Your task to perform on an android device: Go to Android settings Image 0: 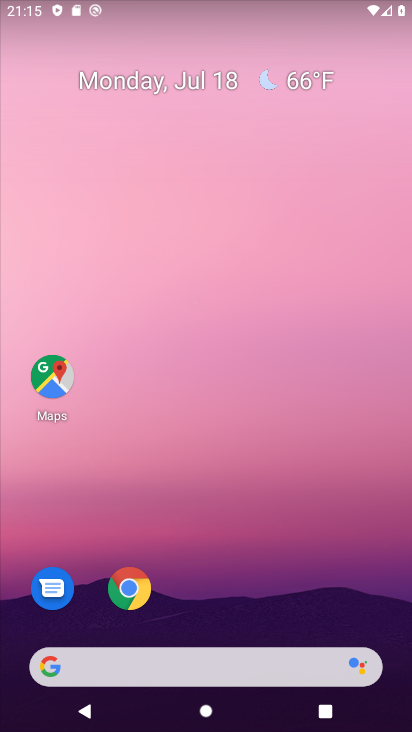
Step 0: press home button
Your task to perform on an android device: Go to Android settings Image 1: 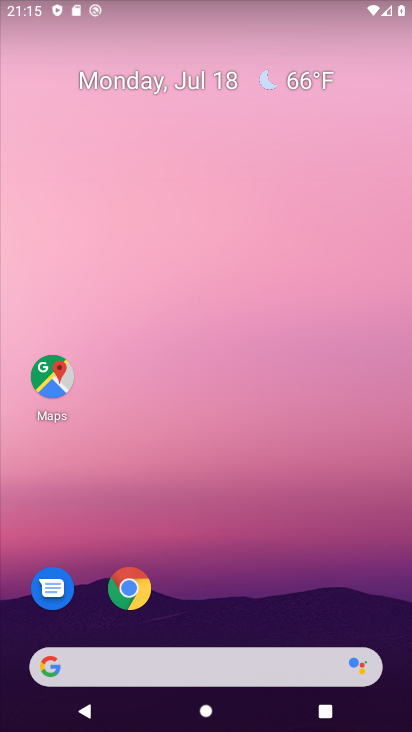
Step 1: drag from (149, 653) to (252, 238)
Your task to perform on an android device: Go to Android settings Image 2: 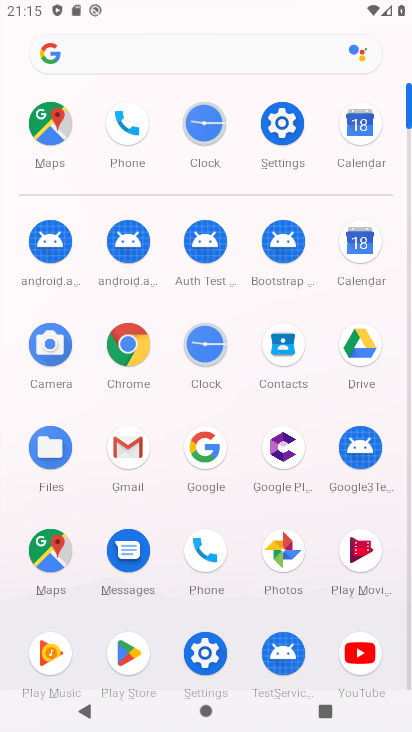
Step 2: click (286, 119)
Your task to perform on an android device: Go to Android settings Image 3: 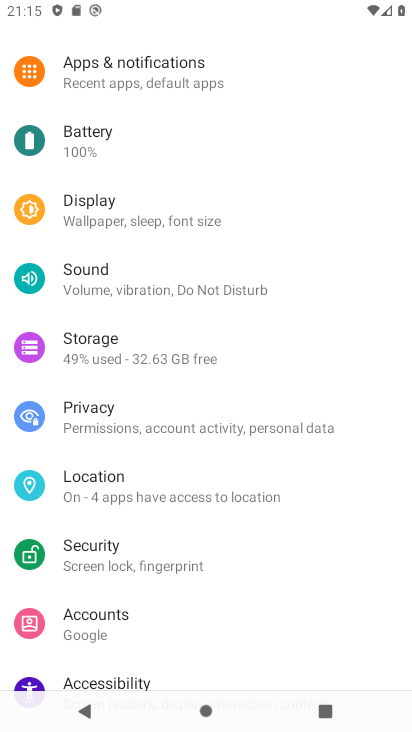
Step 3: task complete